Your task to perform on an android device: Do I have any events today? Image 0: 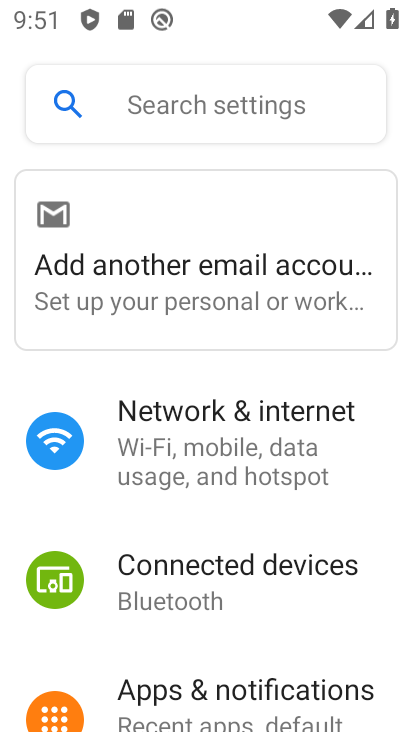
Step 0: press home button
Your task to perform on an android device: Do I have any events today? Image 1: 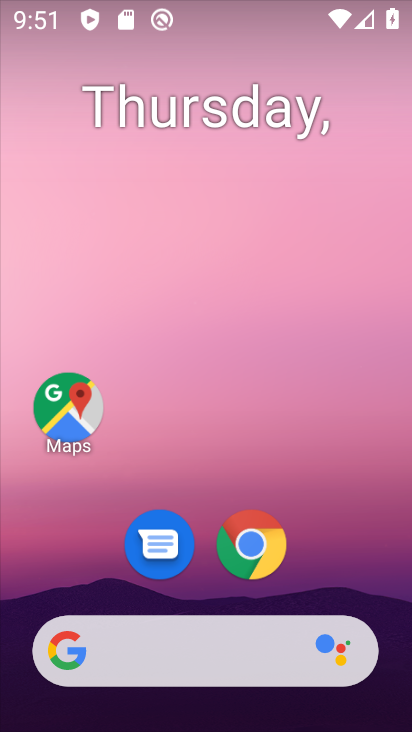
Step 1: press home button
Your task to perform on an android device: Do I have any events today? Image 2: 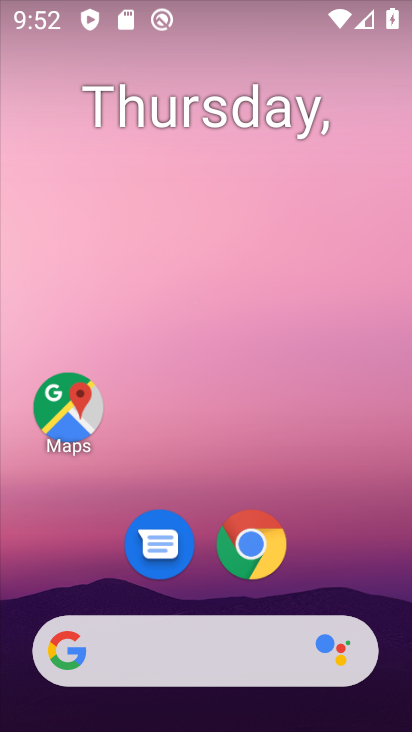
Step 2: drag from (201, 311) to (201, 173)
Your task to perform on an android device: Do I have any events today? Image 3: 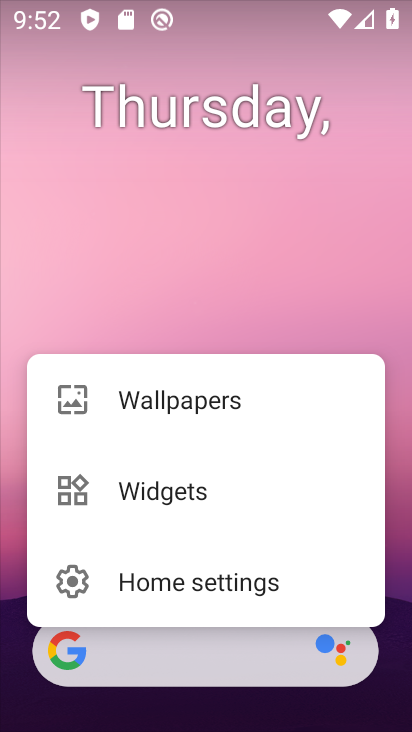
Step 3: click (248, 250)
Your task to perform on an android device: Do I have any events today? Image 4: 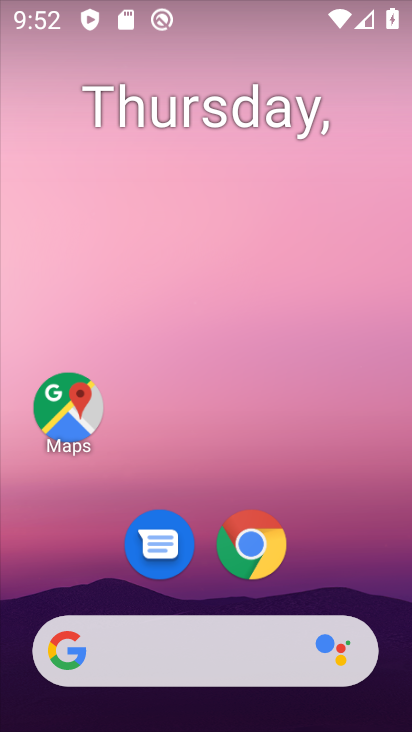
Step 4: drag from (207, 400) to (122, 13)
Your task to perform on an android device: Do I have any events today? Image 5: 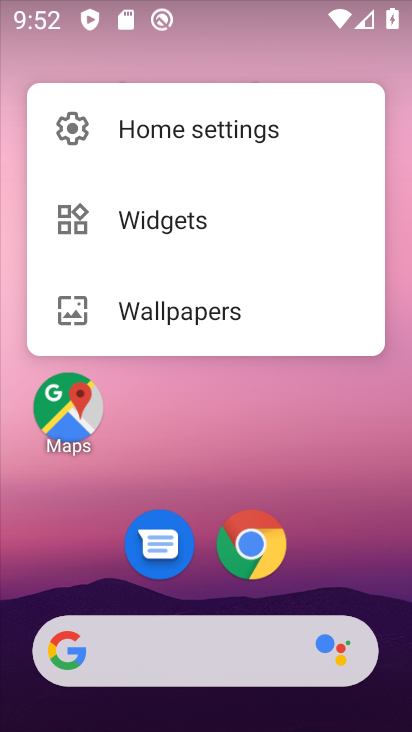
Step 5: click (187, 407)
Your task to perform on an android device: Do I have any events today? Image 6: 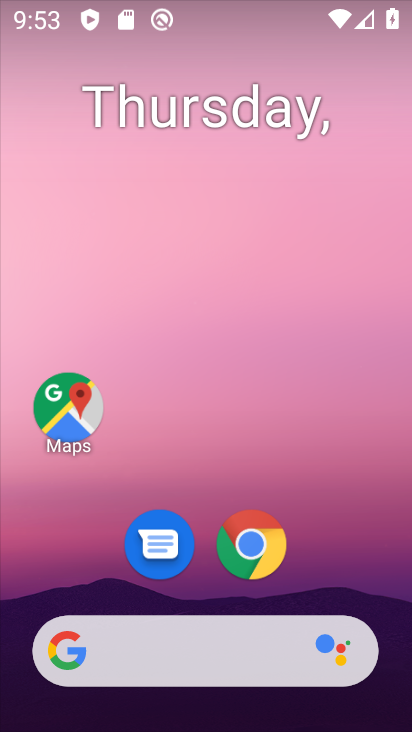
Step 6: drag from (196, 496) to (202, 32)
Your task to perform on an android device: Do I have any events today? Image 7: 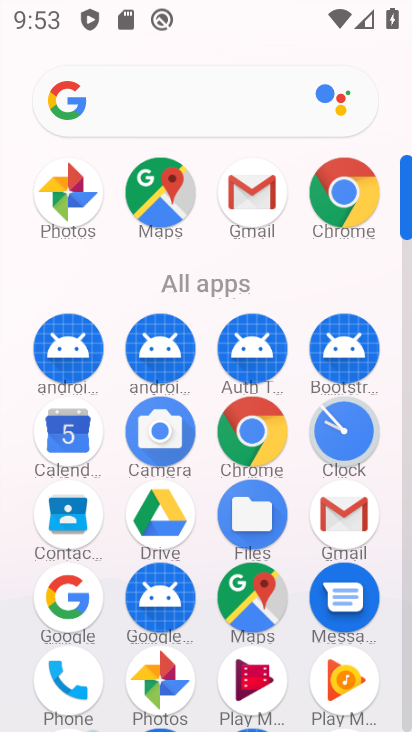
Step 7: click (71, 428)
Your task to perform on an android device: Do I have any events today? Image 8: 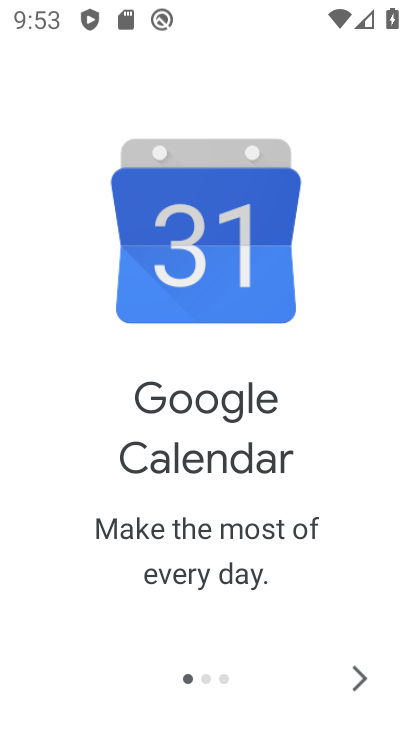
Step 8: click (354, 670)
Your task to perform on an android device: Do I have any events today? Image 9: 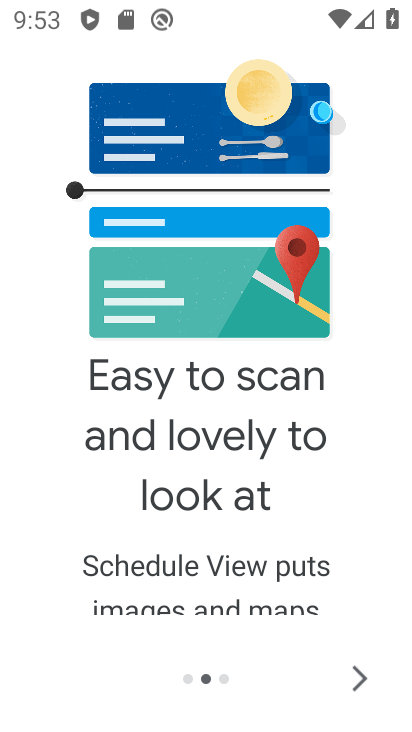
Step 9: click (354, 670)
Your task to perform on an android device: Do I have any events today? Image 10: 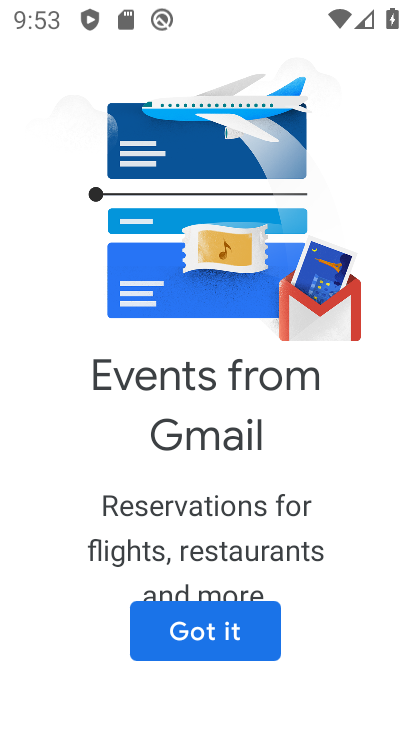
Step 10: click (210, 635)
Your task to perform on an android device: Do I have any events today? Image 11: 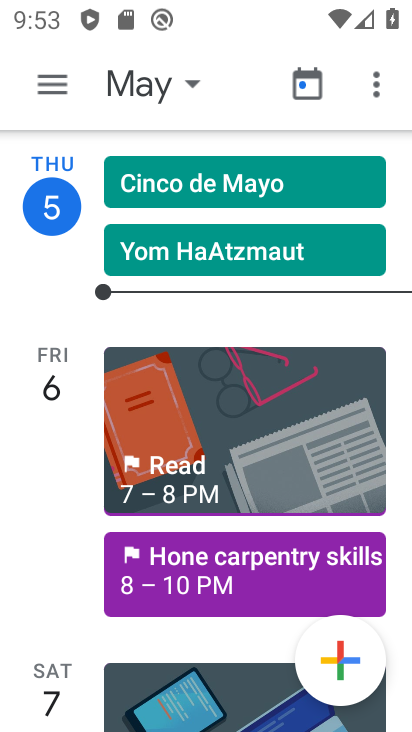
Step 11: click (41, 214)
Your task to perform on an android device: Do I have any events today? Image 12: 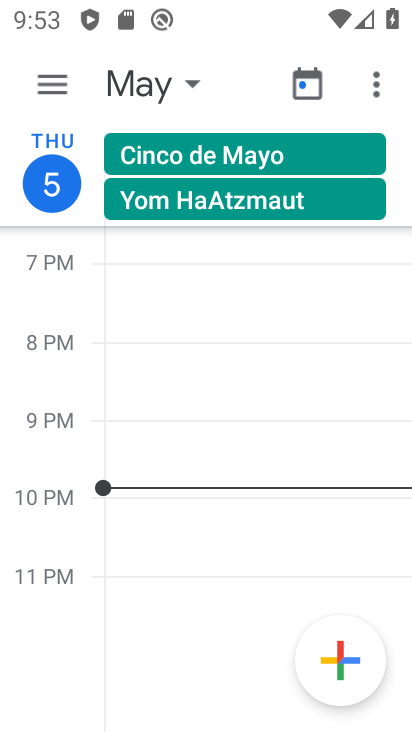
Step 12: click (52, 80)
Your task to perform on an android device: Do I have any events today? Image 13: 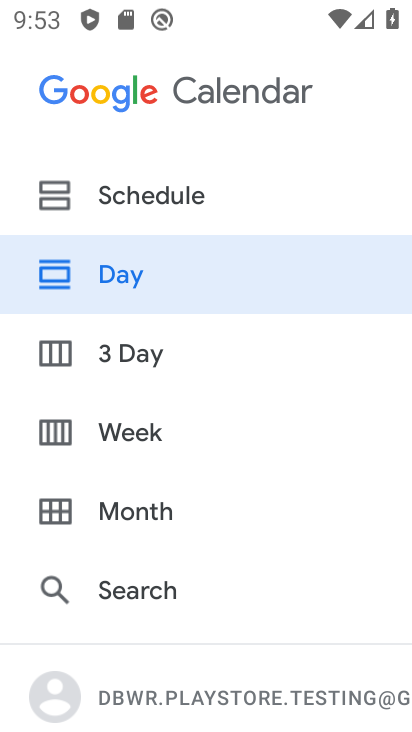
Step 13: drag from (97, 670) to (115, 99)
Your task to perform on an android device: Do I have any events today? Image 14: 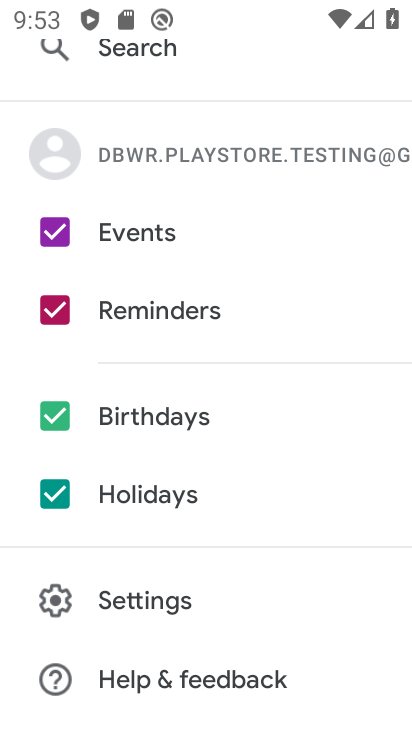
Step 14: click (59, 494)
Your task to perform on an android device: Do I have any events today? Image 15: 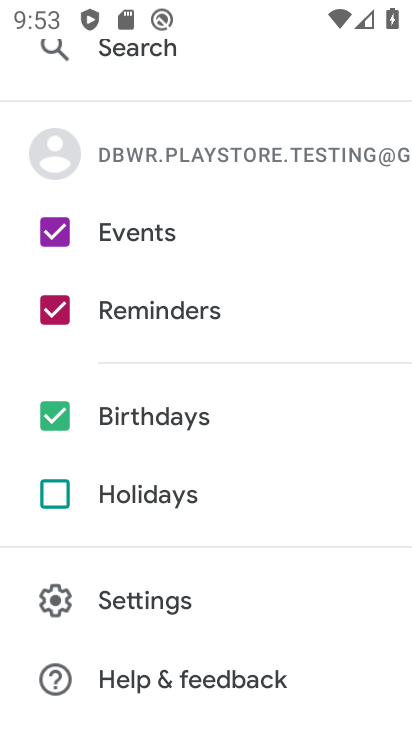
Step 15: click (50, 407)
Your task to perform on an android device: Do I have any events today? Image 16: 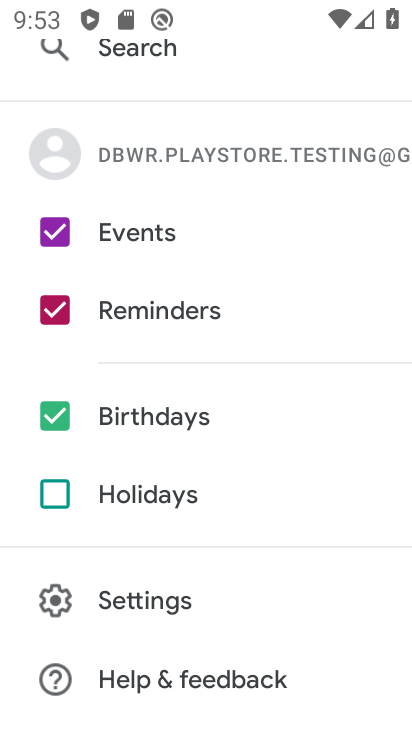
Step 16: click (46, 298)
Your task to perform on an android device: Do I have any events today? Image 17: 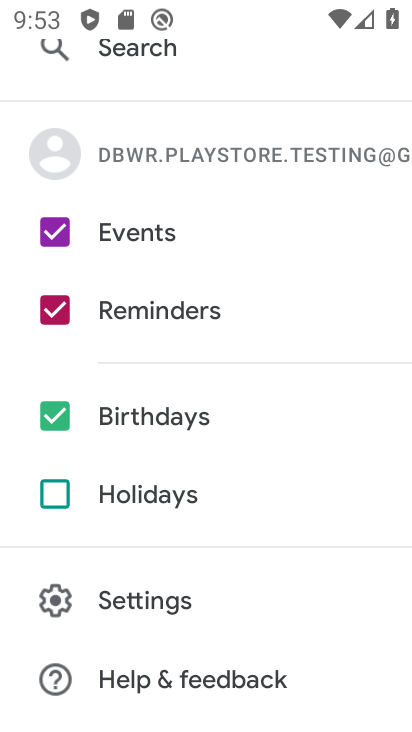
Step 17: click (52, 413)
Your task to perform on an android device: Do I have any events today? Image 18: 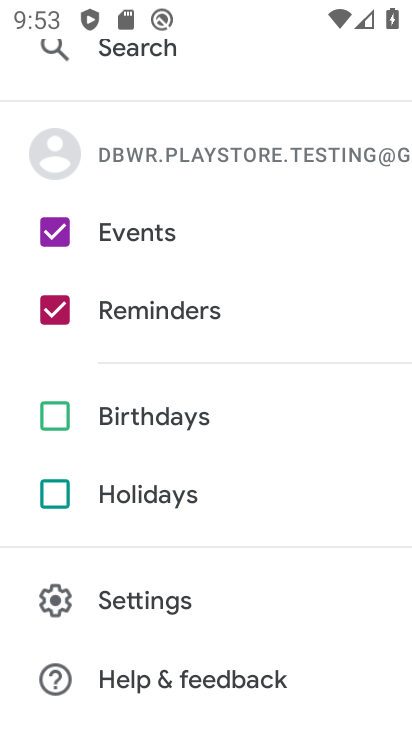
Step 18: click (56, 302)
Your task to perform on an android device: Do I have any events today? Image 19: 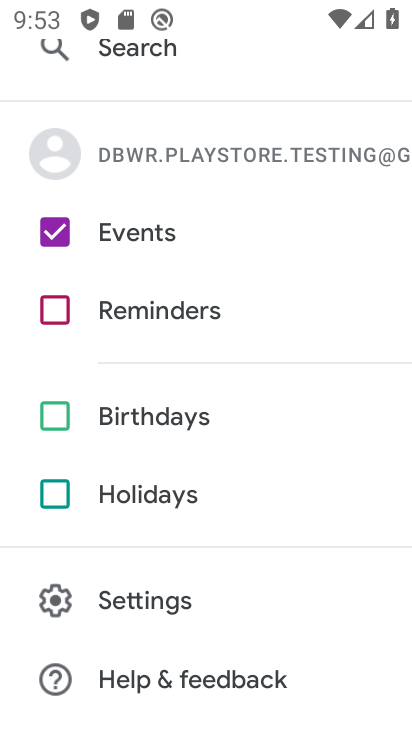
Step 19: drag from (190, 508) to (208, 635)
Your task to perform on an android device: Do I have any events today? Image 20: 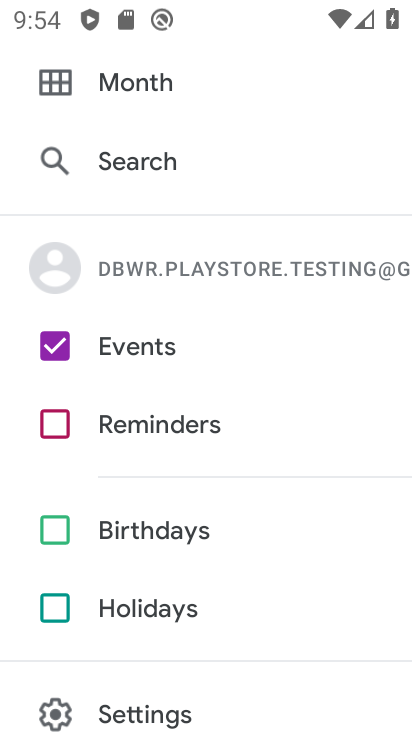
Step 20: drag from (102, 174) to (122, 697)
Your task to perform on an android device: Do I have any events today? Image 21: 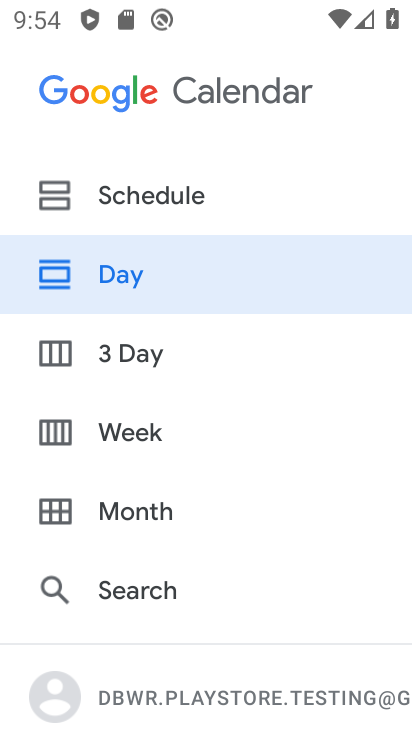
Step 21: click (83, 200)
Your task to perform on an android device: Do I have any events today? Image 22: 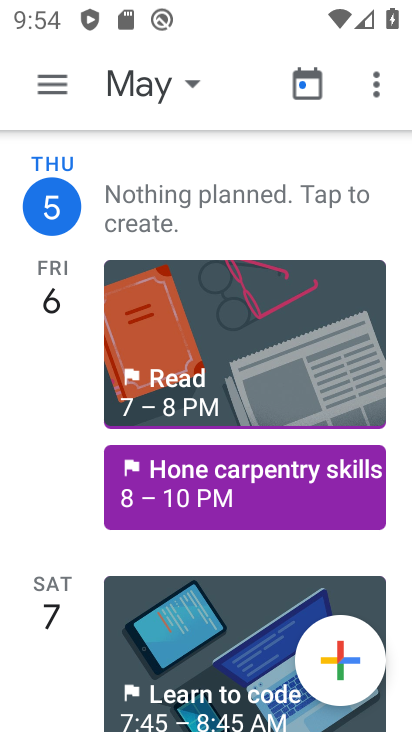
Step 22: click (67, 227)
Your task to perform on an android device: Do I have any events today? Image 23: 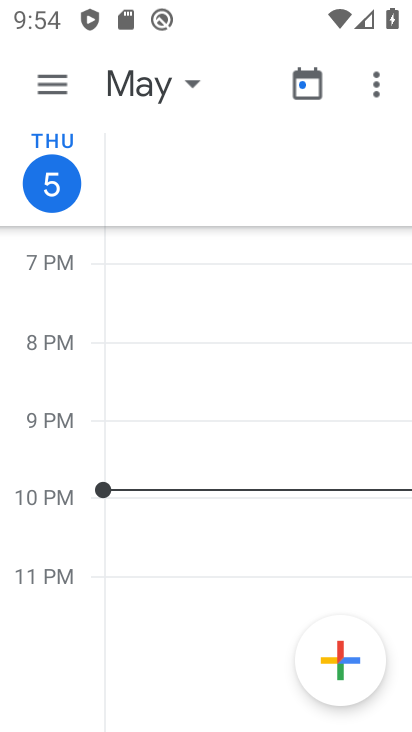
Step 23: task complete